Your task to perform on an android device: change keyboard looks Image 0: 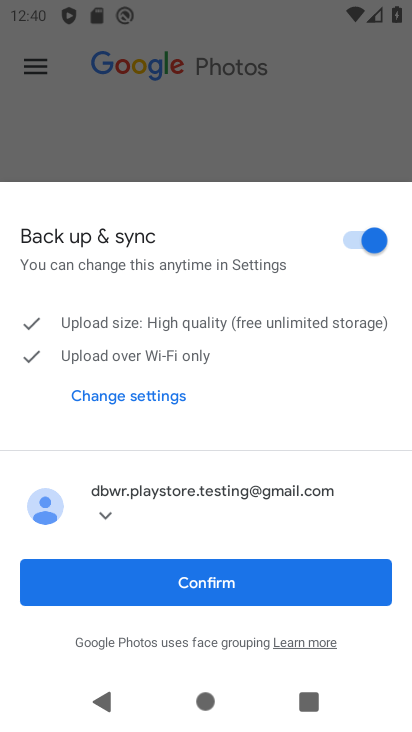
Step 0: click (323, 579)
Your task to perform on an android device: change keyboard looks Image 1: 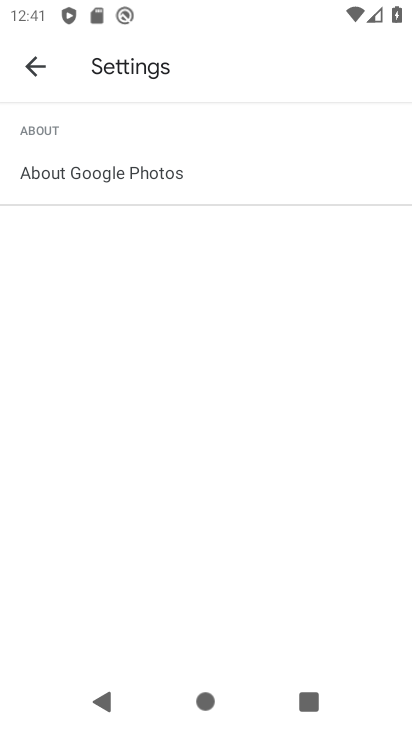
Step 1: press home button
Your task to perform on an android device: change keyboard looks Image 2: 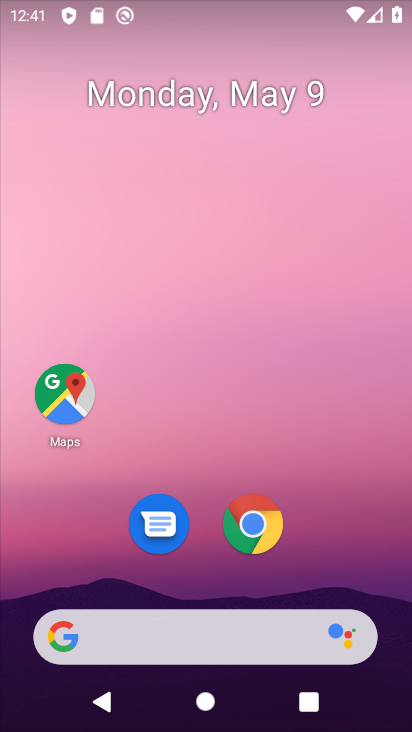
Step 2: drag from (183, 564) to (268, 75)
Your task to perform on an android device: change keyboard looks Image 3: 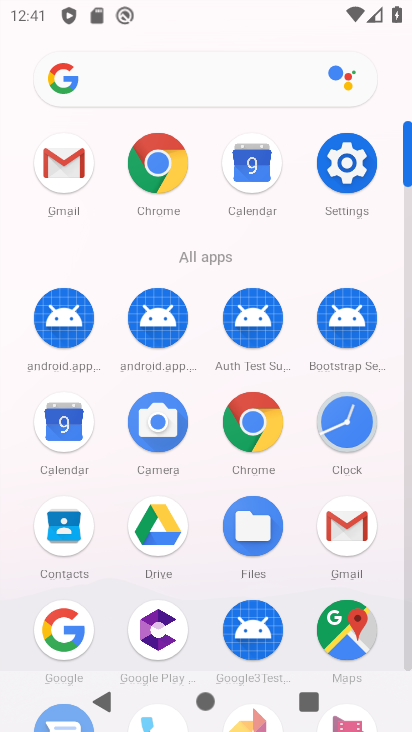
Step 3: click (348, 174)
Your task to perform on an android device: change keyboard looks Image 4: 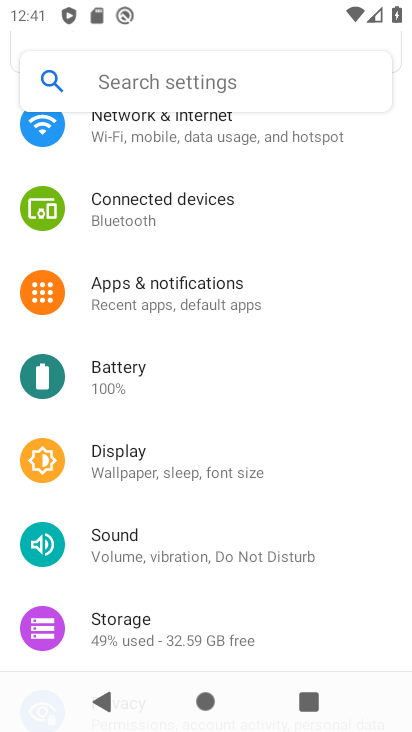
Step 4: drag from (205, 607) to (240, 106)
Your task to perform on an android device: change keyboard looks Image 5: 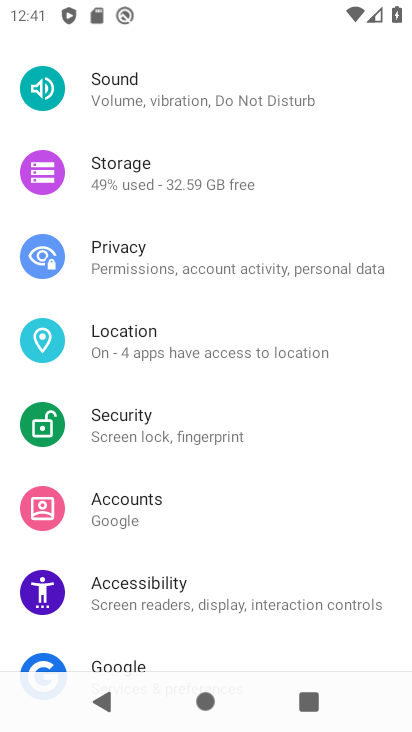
Step 5: drag from (250, 538) to (248, 139)
Your task to perform on an android device: change keyboard looks Image 6: 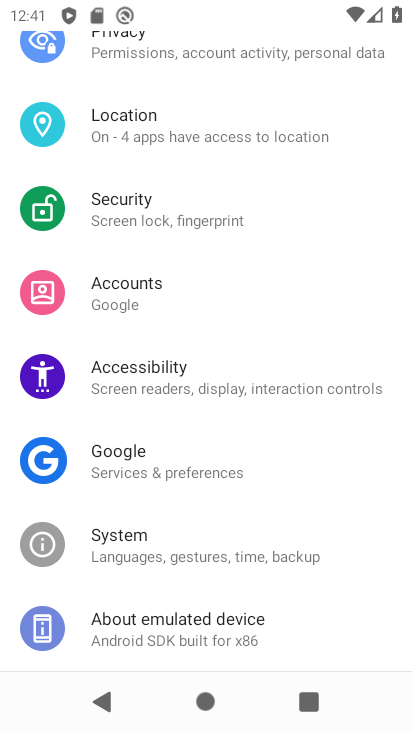
Step 6: click (178, 540)
Your task to perform on an android device: change keyboard looks Image 7: 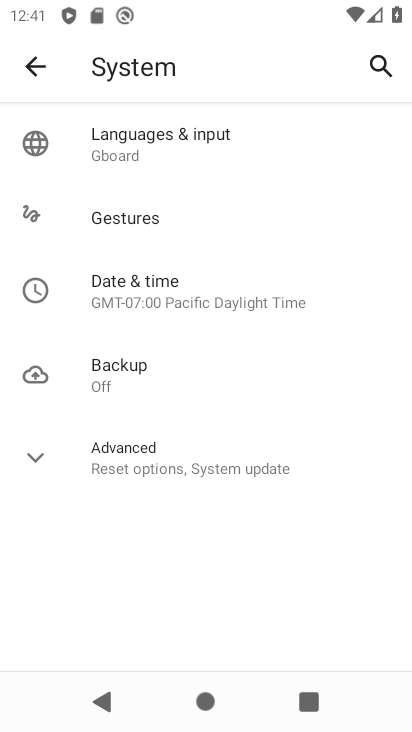
Step 7: click (204, 152)
Your task to perform on an android device: change keyboard looks Image 8: 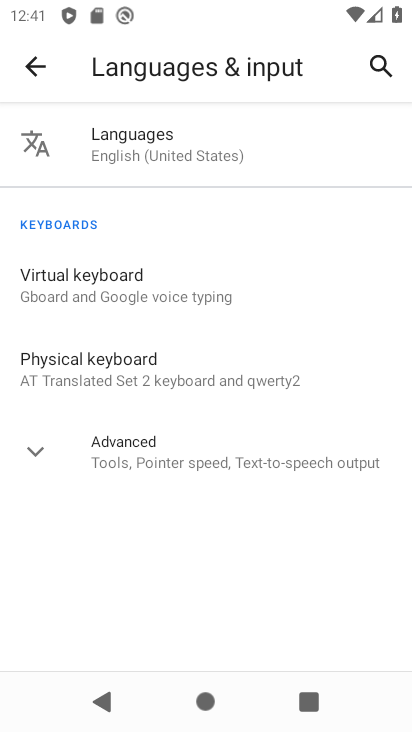
Step 8: click (157, 284)
Your task to perform on an android device: change keyboard looks Image 9: 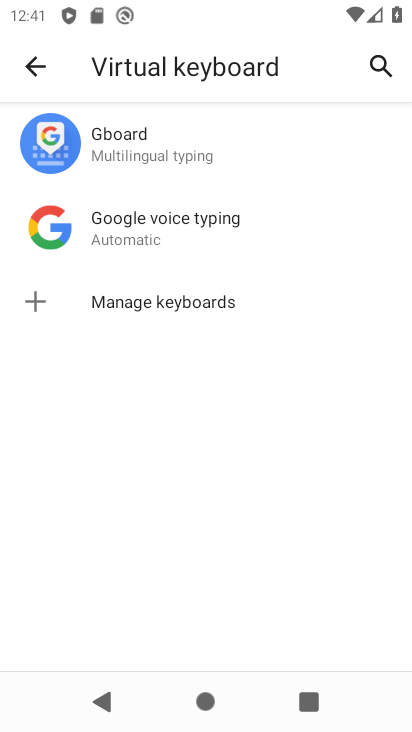
Step 9: click (162, 137)
Your task to perform on an android device: change keyboard looks Image 10: 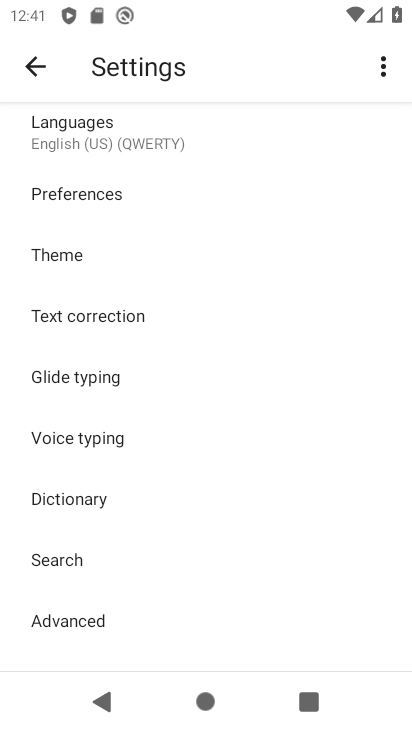
Step 10: click (63, 257)
Your task to perform on an android device: change keyboard looks Image 11: 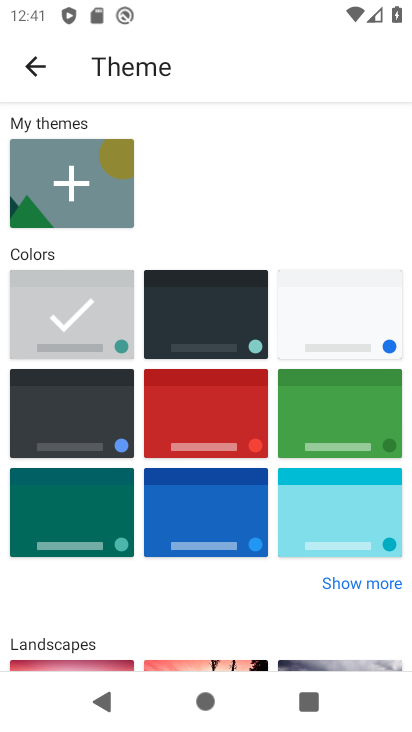
Step 11: click (167, 301)
Your task to perform on an android device: change keyboard looks Image 12: 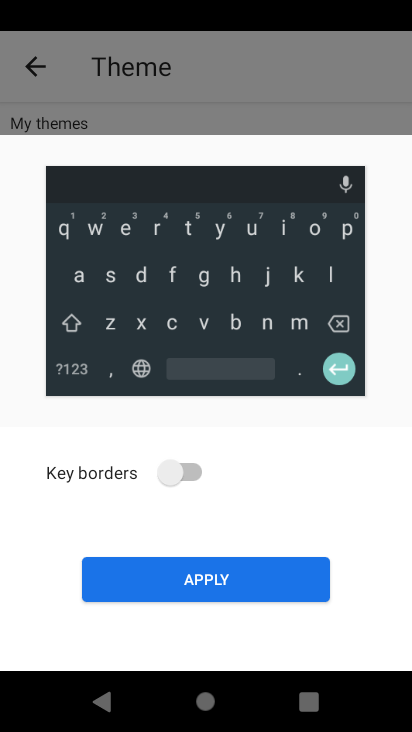
Step 12: click (185, 470)
Your task to perform on an android device: change keyboard looks Image 13: 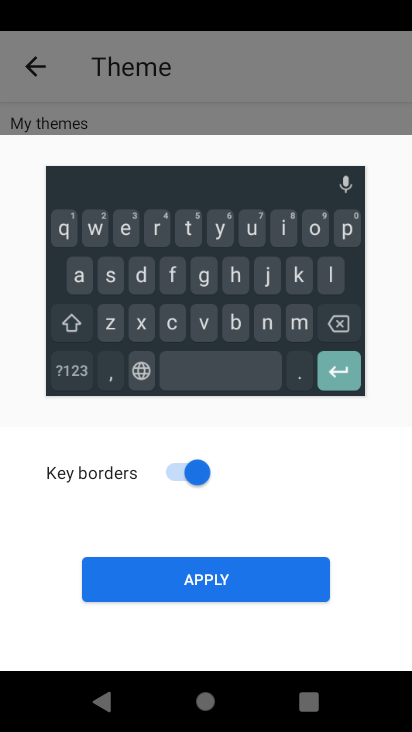
Step 13: click (200, 568)
Your task to perform on an android device: change keyboard looks Image 14: 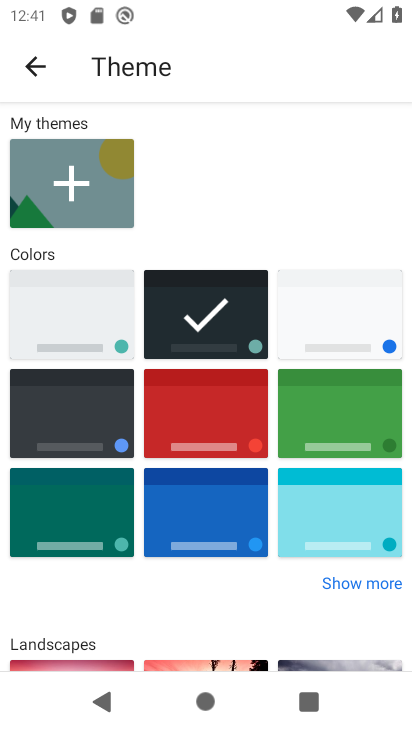
Step 14: task complete